Your task to perform on an android device: Open the web browser Image 0: 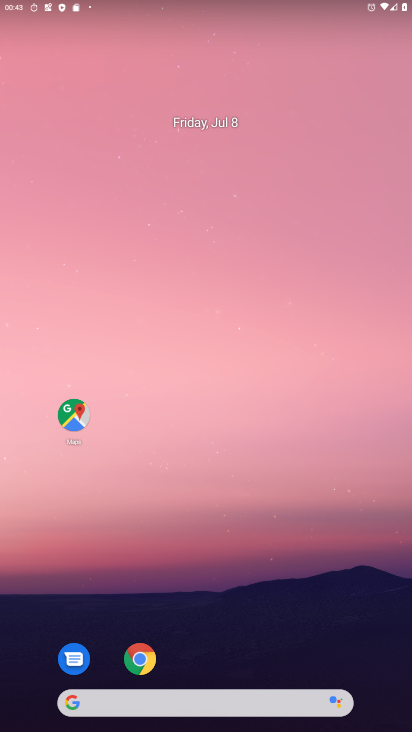
Step 0: click (139, 709)
Your task to perform on an android device: Open the web browser Image 1: 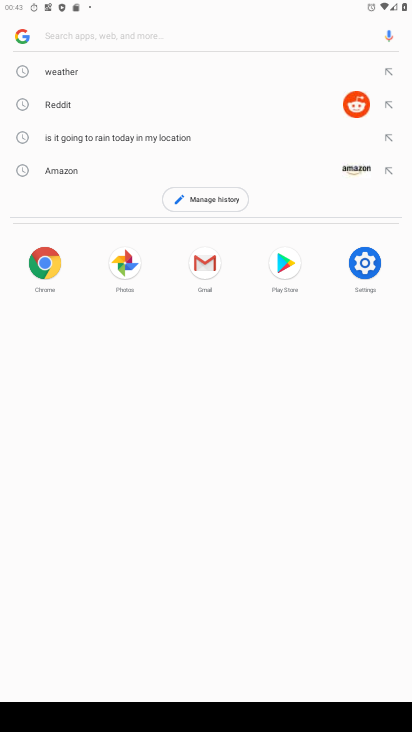
Step 1: task complete